Your task to perform on an android device: What's the weather going to be tomorrow? Image 0: 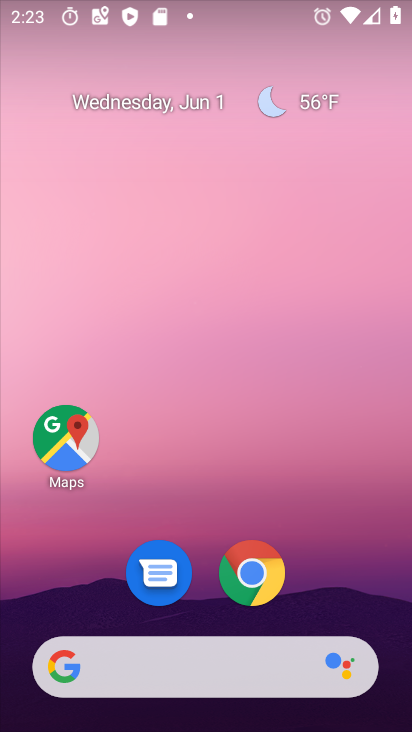
Step 0: drag from (350, 552) to (384, 73)
Your task to perform on an android device: What's the weather going to be tomorrow? Image 1: 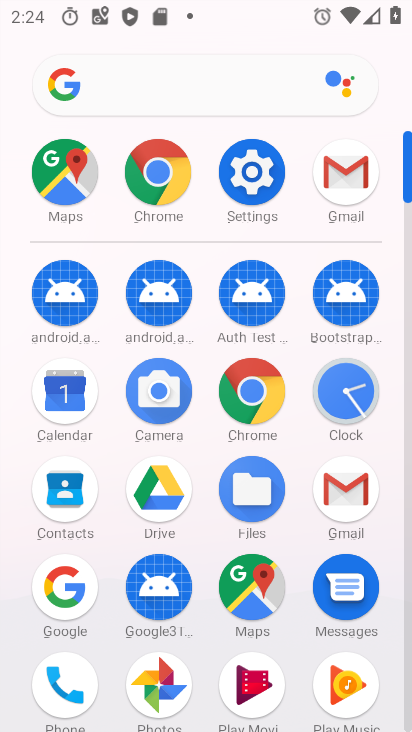
Step 1: click (71, 101)
Your task to perform on an android device: What's the weather going to be tomorrow? Image 2: 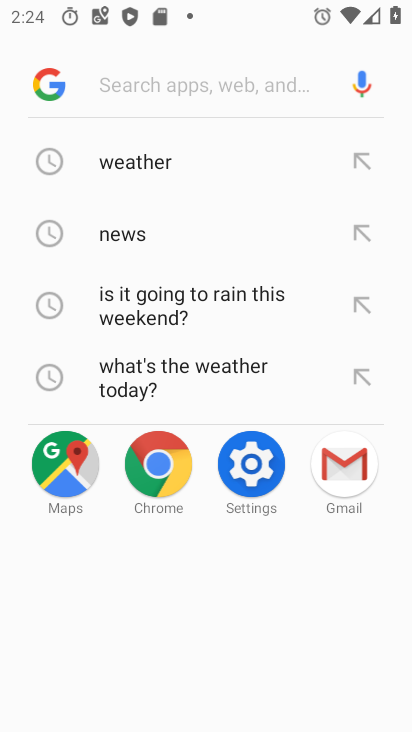
Step 2: click (52, 75)
Your task to perform on an android device: What's the weather going to be tomorrow? Image 3: 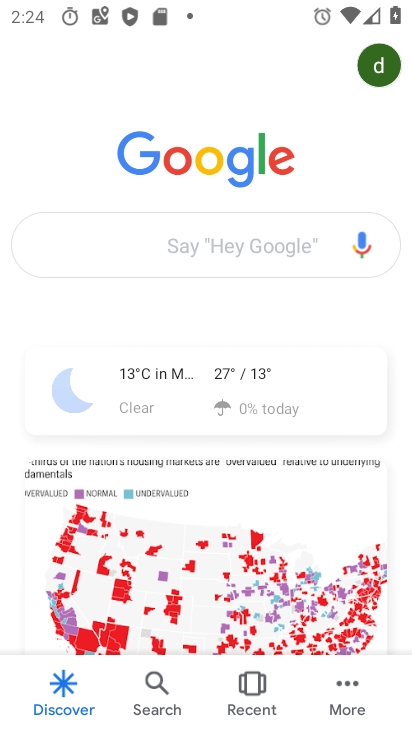
Step 3: click (130, 384)
Your task to perform on an android device: What's the weather going to be tomorrow? Image 4: 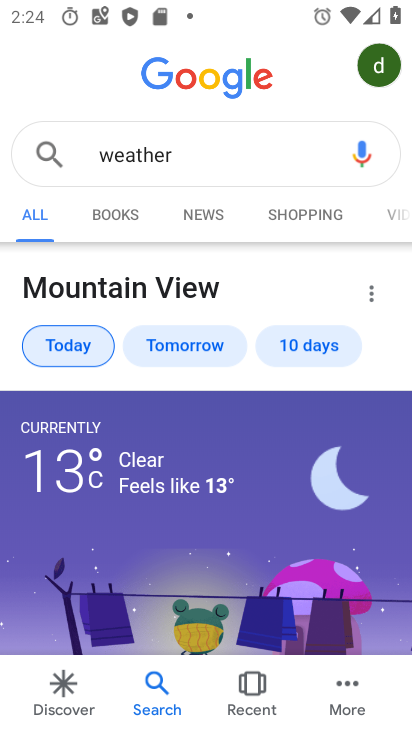
Step 4: task complete